Your task to perform on an android device: stop showing notifications on the lock screen Image 0: 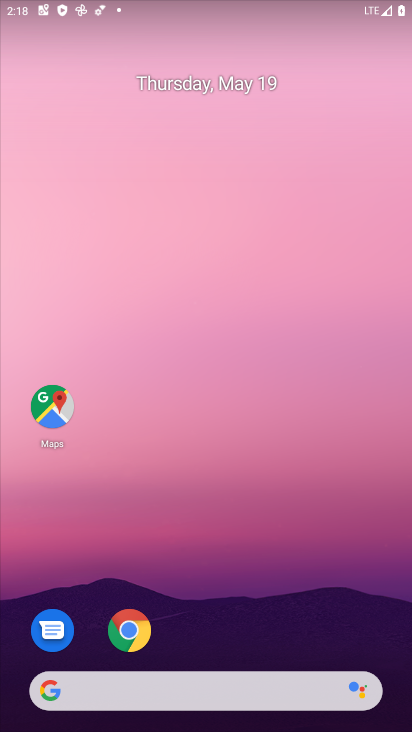
Step 0: drag from (386, 644) to (318, 99)
Your task to perform on an android device: stop showing notifications on the lock screen Image 1: 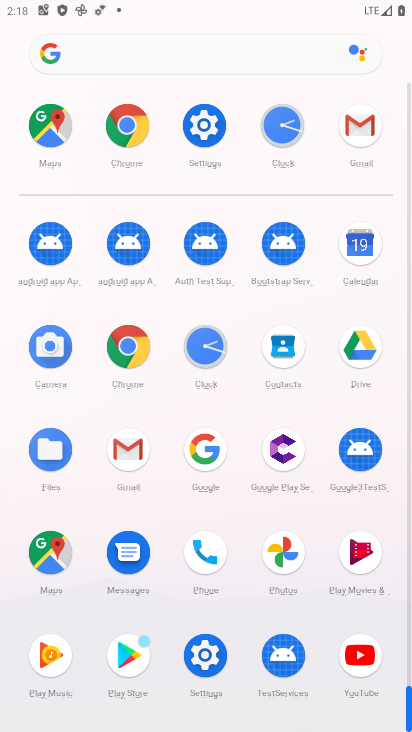
Step 1: click (204, 652)
Your task to perform on an android device: stop showing notifications on the lock screen Image 2: 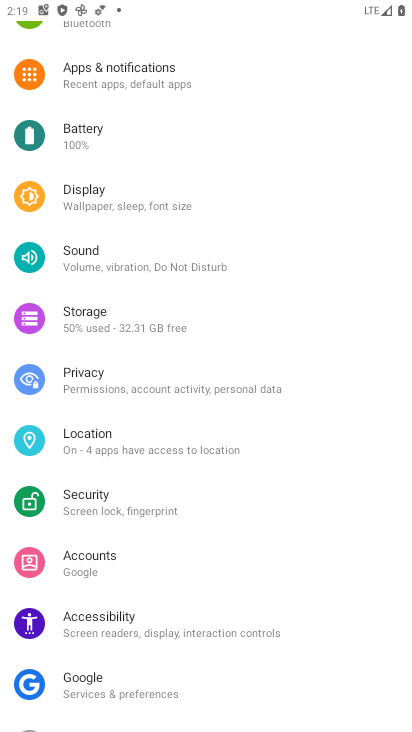
Step 2: click (138, 79)
Your task to perform on an android device: stop showing notifications on the lock screen Image 3: 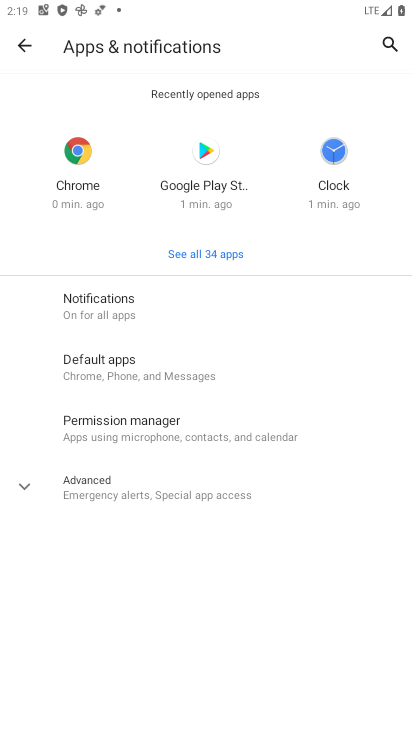
Step 3: click (106, 298)
Your task to perform on an android device: stop showing notifications on the lock screen Image 4: 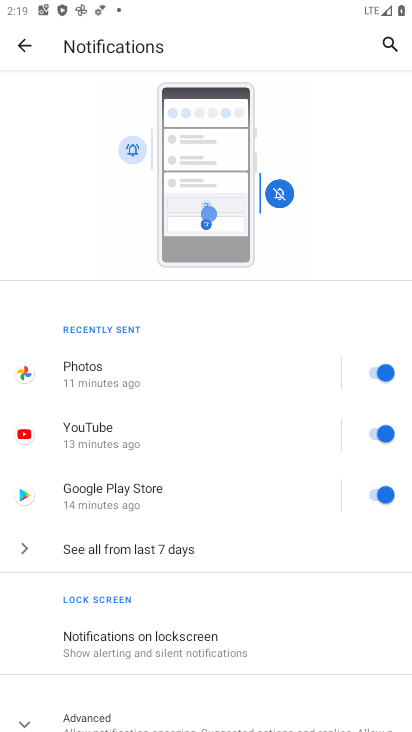
Step 4: click (135, 639)
Your task to perform on an android device: stop showing notifications on the lock screen Image 5: 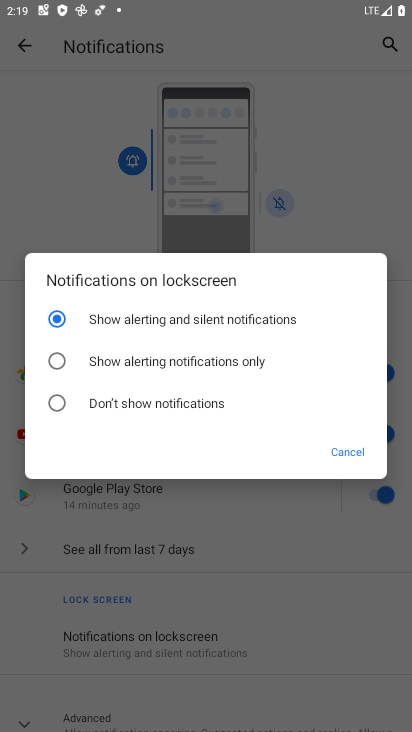
Step 5: click (60, 402)
Your task to perform on an android device: stop showing notifications on the lock screen Image 6: 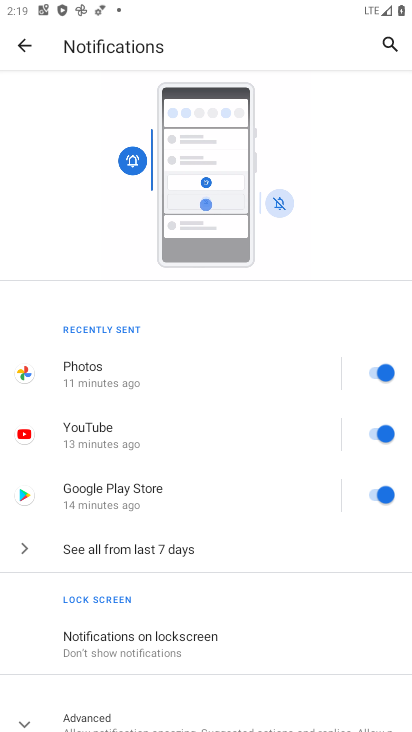
Step 6: task complete